Your task to perform on an android device: Is it going to rain this weekend? Image 0: 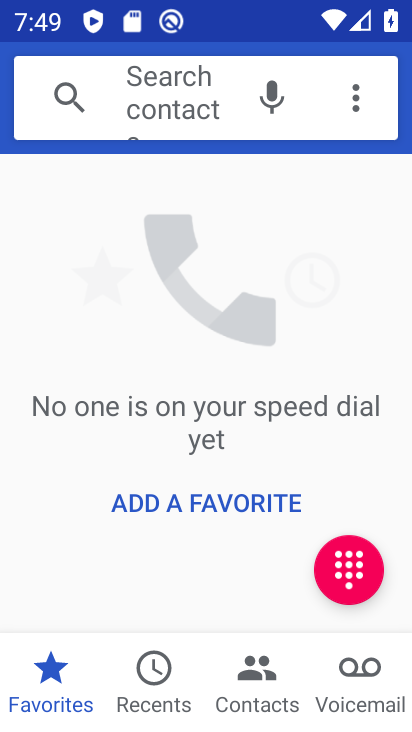
Step 0: press home button
Your task to perform on an android device: Is it going to rain this weekend? Image 1: 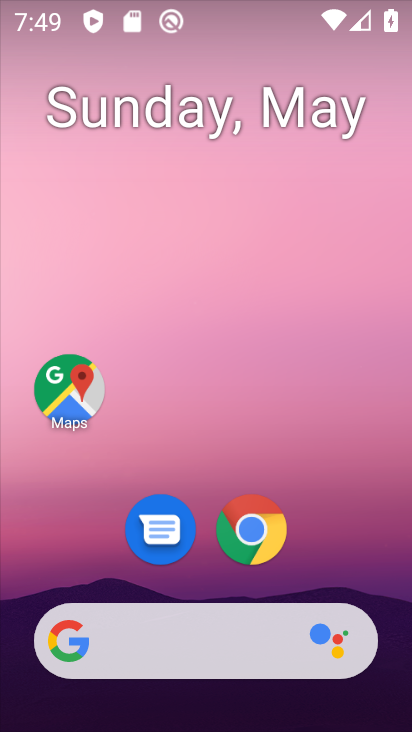
Step 1: drag from (345, 552) to (365, 177)
Your task to perform on an android device: Is it going to rain this weekend? Image 2: 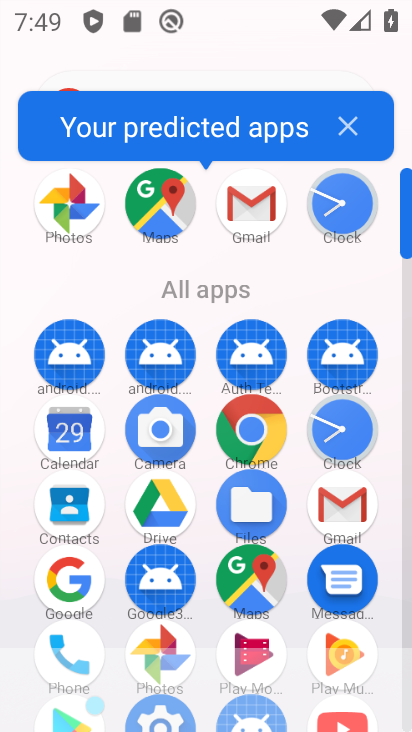
Step 2: click (159, 164)
Your task to perform on an android device: Is it going to rain this weekend? Image 3: 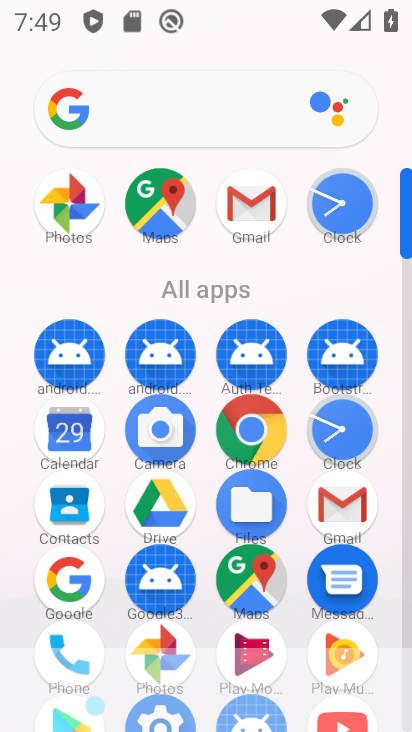
Step 3: click (185, 117)
Your task to perform on an android device: Is it going to rain this weekend? Image 4: 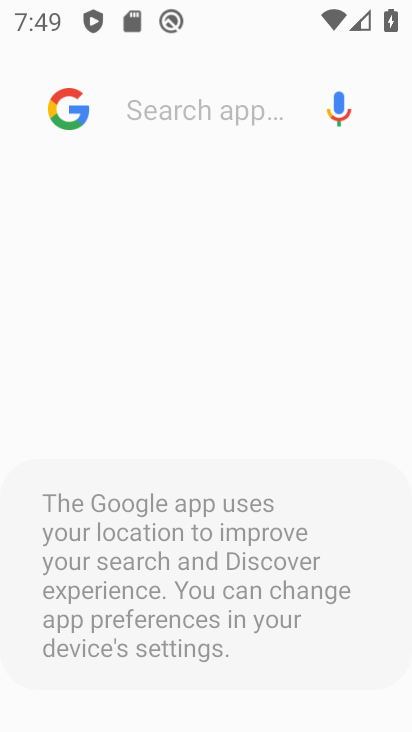
Step 4: click (185, 117)
Your task to perform on an android device: Is it going to rain this weekend? Image 5: 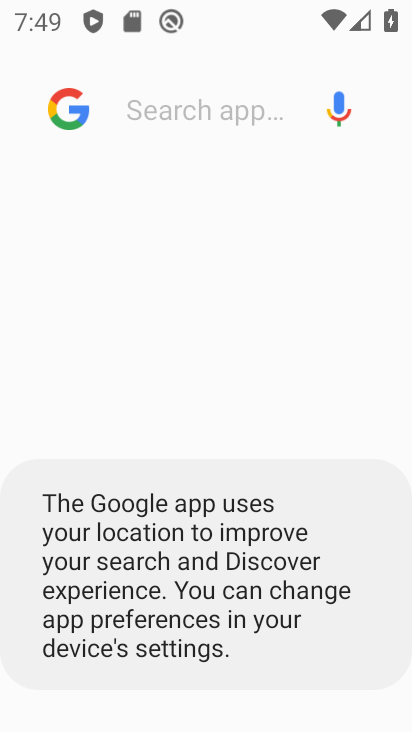
Step 5: click (185, 117)
Your task to perform on an android device: Is it going to rain this weekend? Image 6: 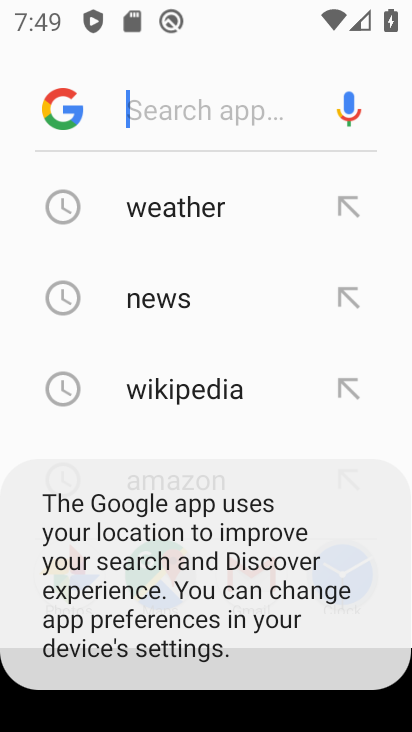
Step 6: click (214, 217)
Your task to perform on an android device: Is it going to rain this weekend? Image 7: 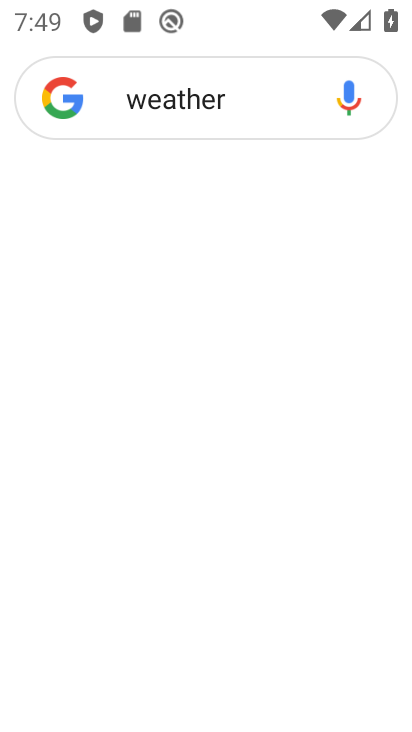
Step 7: task complete